Your task to perform on an android device: delete a single message in the gmail app Image 0: 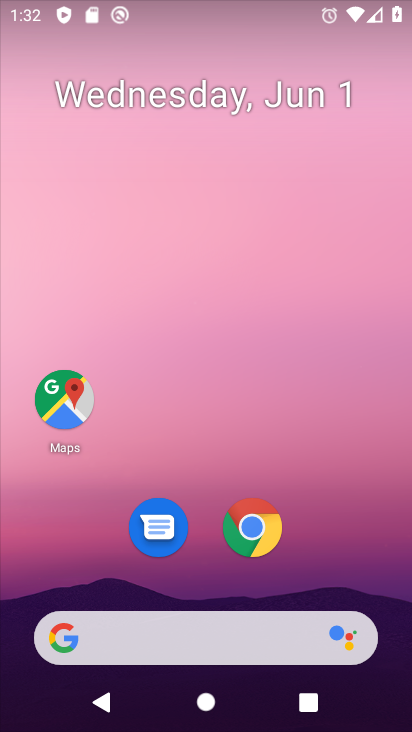
Step 0: drag from (357, 574) to (283, 187)
Your task to perform on an android device: delete a single message in the gmail app Image 1: 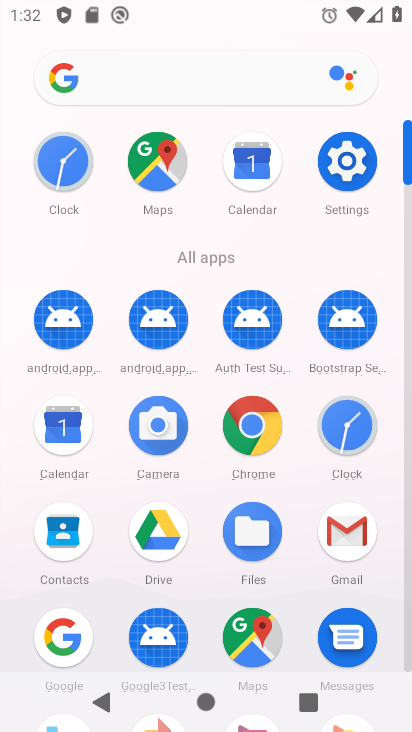
Step 1: click (359, 527)
Your task to perform on an android device: delete a single message in the gmail app Image 2: 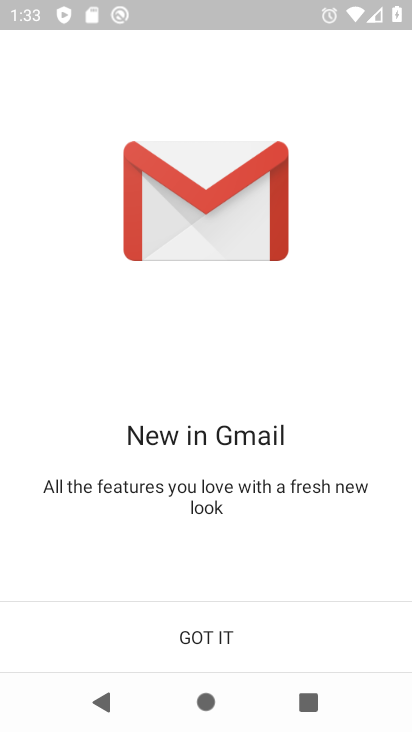
Step 2: click (228, 628)
Your task to perform on an android device: delete a single message in the gmail app Image 3: 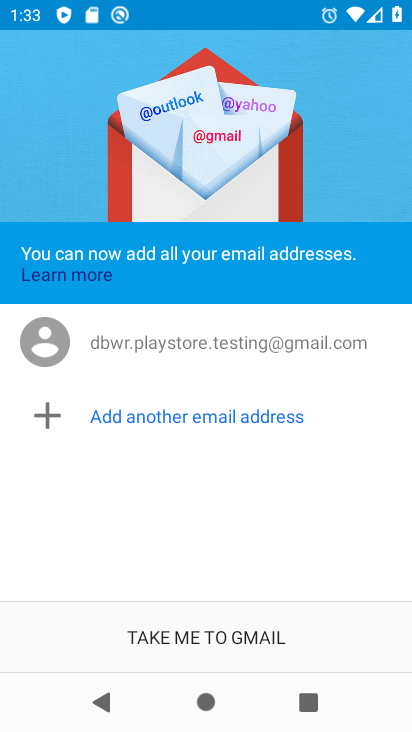
Step 3: click (228, 628)
Your task to perform on an android device: delete a single message in the gmail app Image 4: 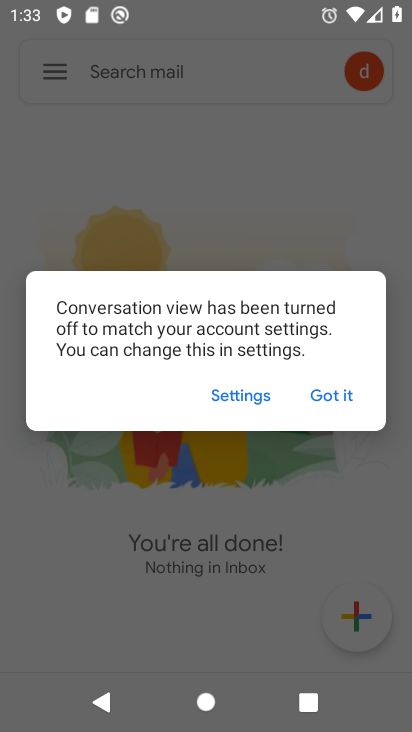
Step 4: click (321, 390)
Your task to perform on an android device: delete a single message in the gmail app Image 5: 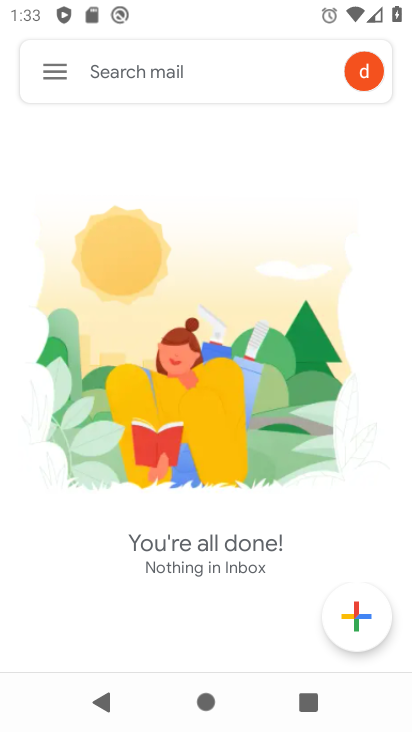
Step 5: task complete